Your task to perform on an android device: turn vacation reply on in the gmail app Image 0: 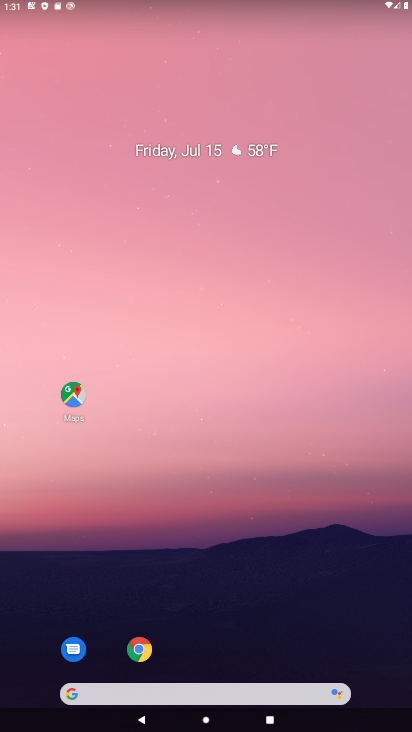
Step 0: drag from (296, 692) to (292, 127)
Your task to perform on an android device: turn vacation reply on in the gmail app Image 1: 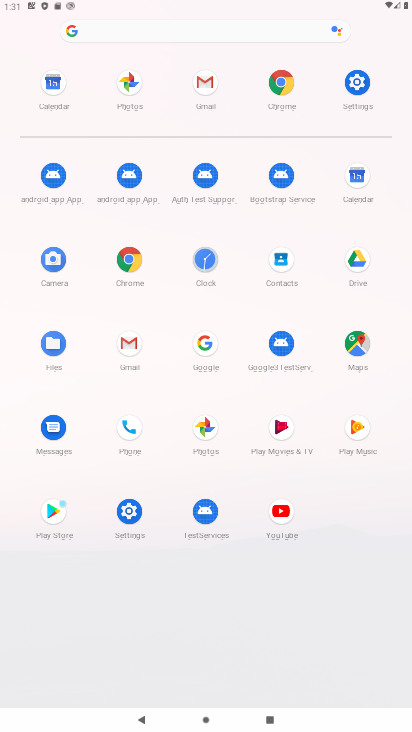
Step 1: click (132, 349)
Your task to perform on an android device: turn vacation reply on in the gmail app Image 2: 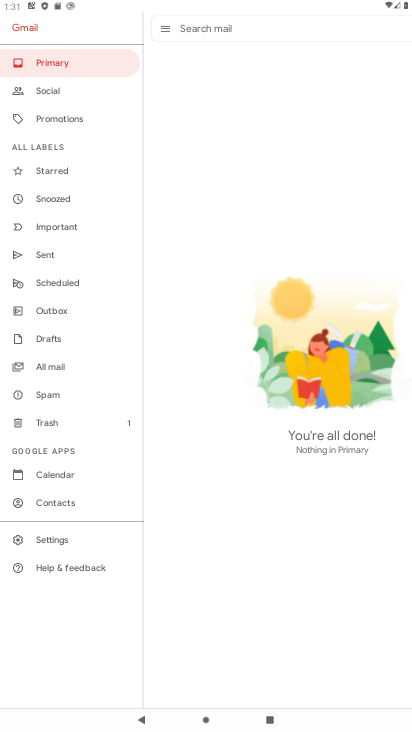
Step 2: click (62, 539)
Your task to perform on an android device: turn vacation reply on in the gmail app Image 3: 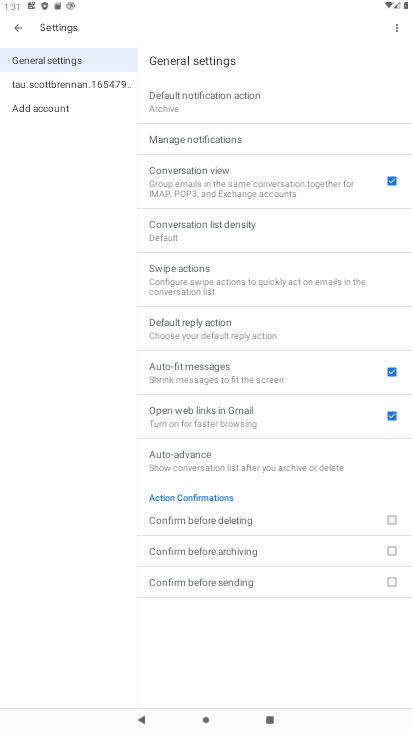
Step 3: click (101, 86)
Your task to perform on an android device: turn vacation reply on in the gmail app Image 4: 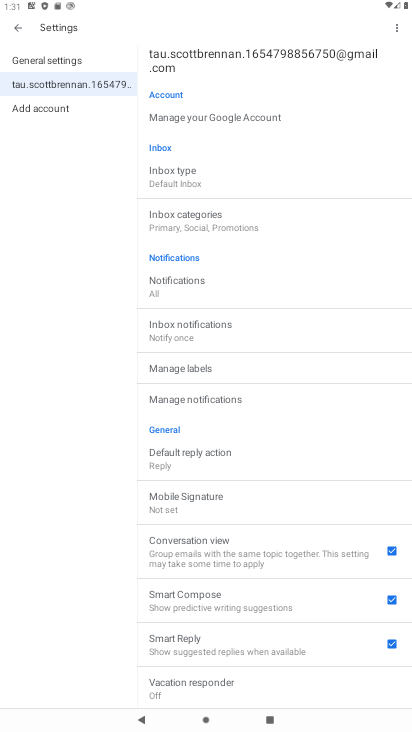
Step 4: click (212, 683)
Your task to perform on an android device: turn vacation reply on in the gmail app Image 5: 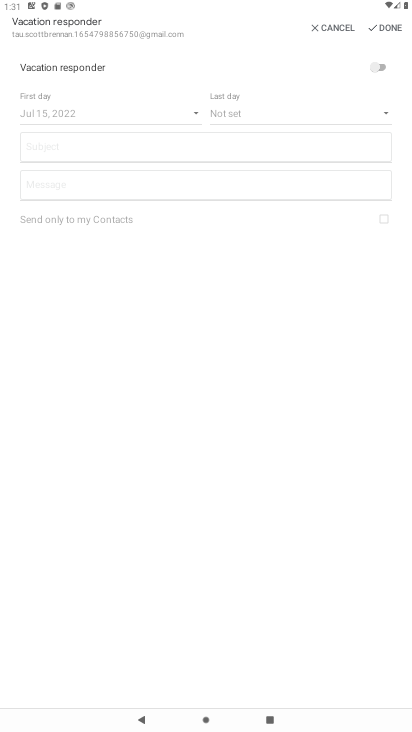
Step 5: click (386, 26)
Your task to perform on an android device: turn vacation reply on in the gmail app Image 6: 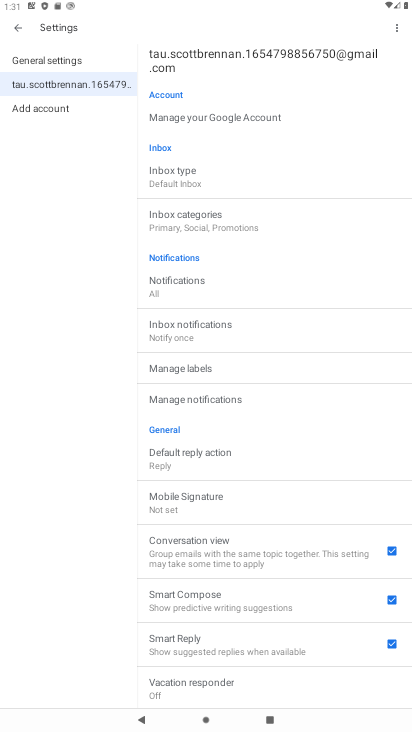
Step 6: task complete